Your task to perform on an android device: turn on showing notifications on the lock screen Image 0: 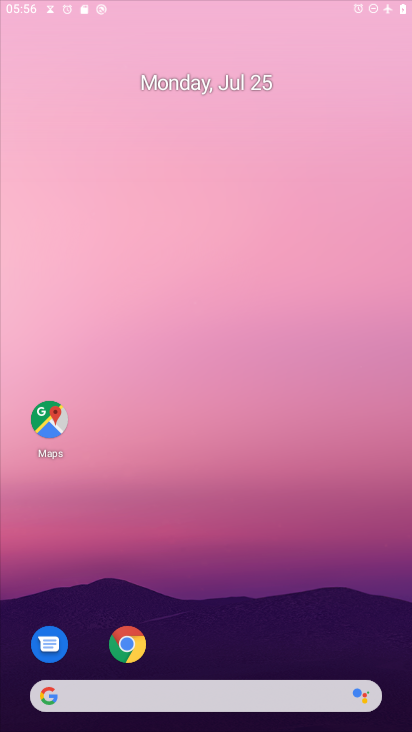
Step 0: press home button
Your task to perform on an android device: turn on showing notifications on the lock screen Image 1: 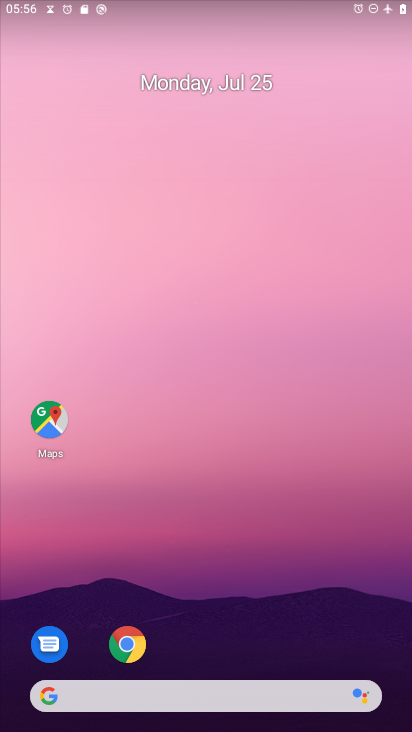
Step 1: drag from (205, 653) to (151, 141)
Your task to perform on an android device: turn on showing notifications on the lock screen Image 2: 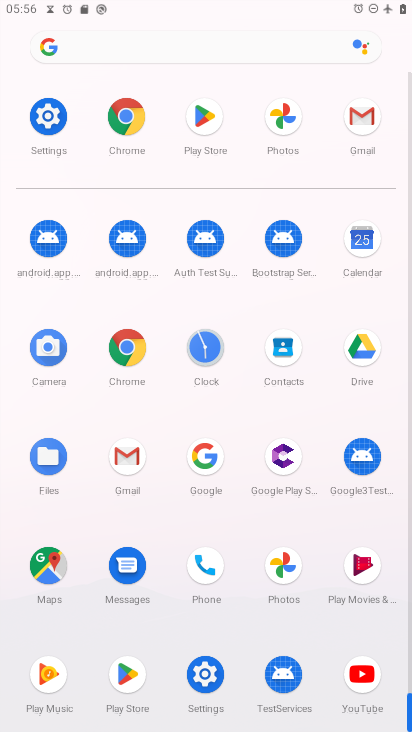
Step 2: click (42, 118)
Your task to perform on an android device: turn on showing notifications on the lock screen Image 3: 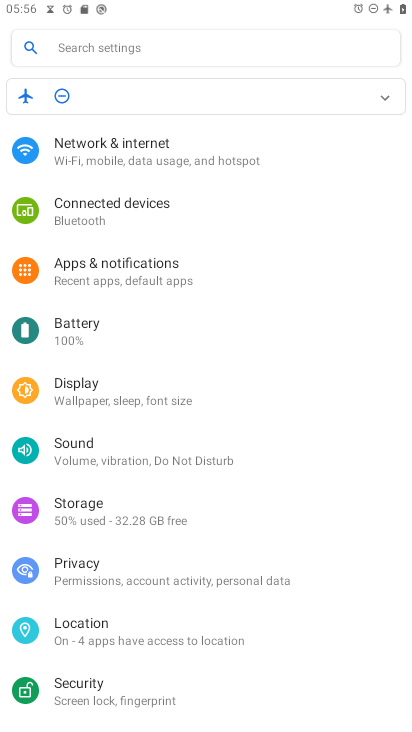
Step 3: click (169, 274)
Your task to perform on an android device: turn on showing notifications on the lock screen Image 4: 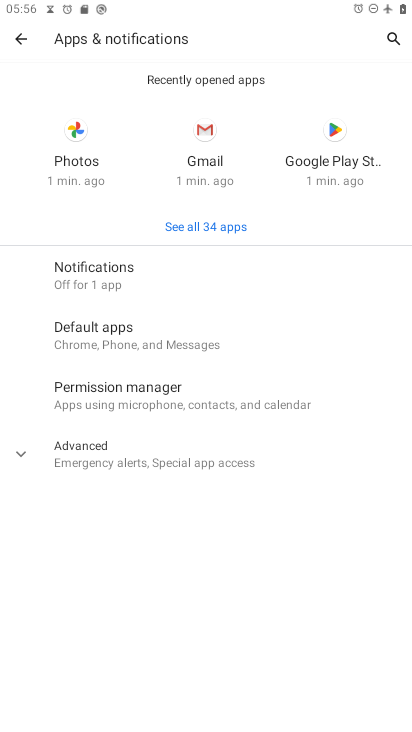
Step 4: click (61, 280)
Your task to perform on an android device: turn on showing notifications on the lock screen Image 5: 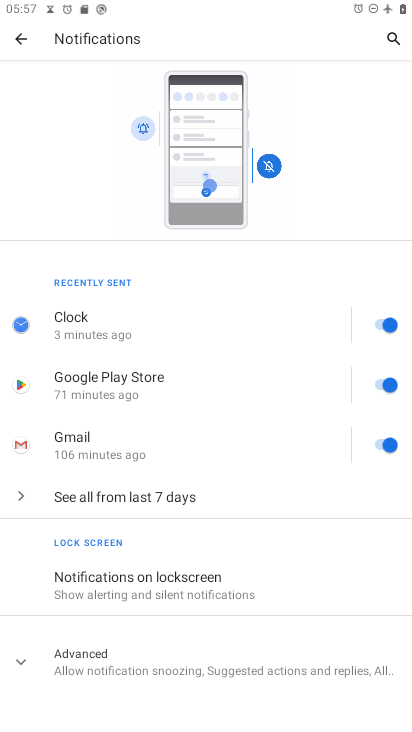
Step 5: click (149, 583)
Your task to perform on an android device: turn on showing notifications on the lock screen Image 6: 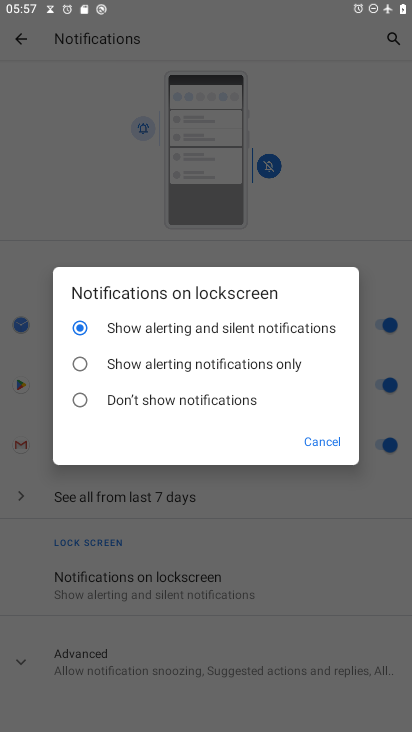
Step 6: task complete